Your task to perform on an android device: Open Yahoo.com Image 0: 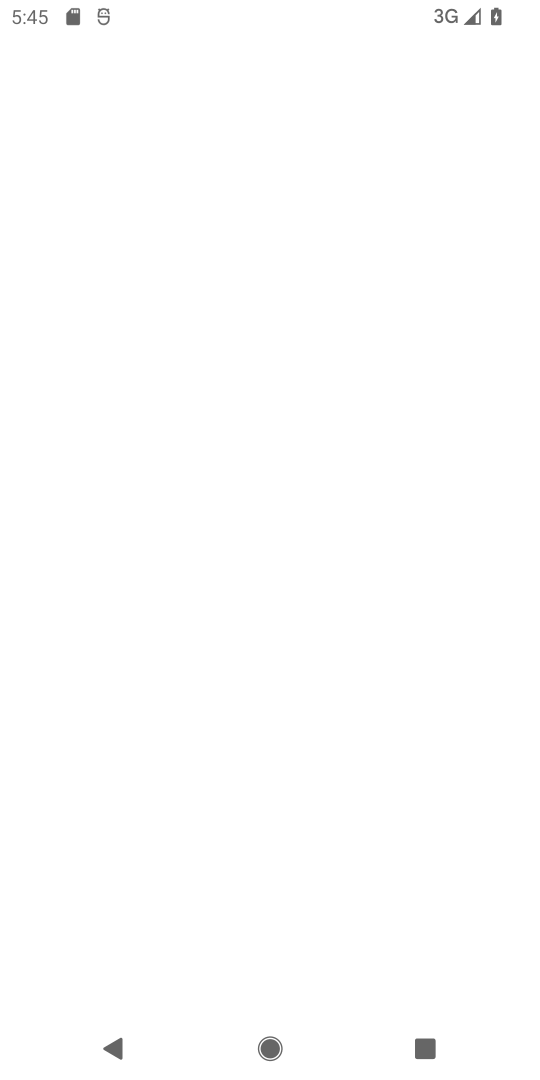
Step 0: press home button
Your task to perform on an android device: Open Yahoo.com Image 1: 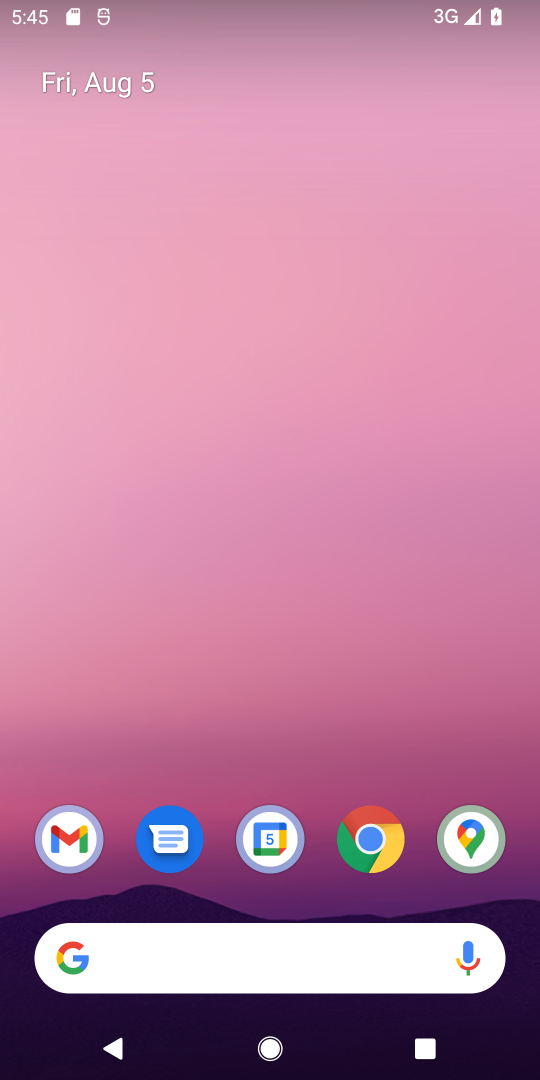
Step 1: click (354, 833)
Your task to perform on an android device: Open Yahoo.com Image 2: 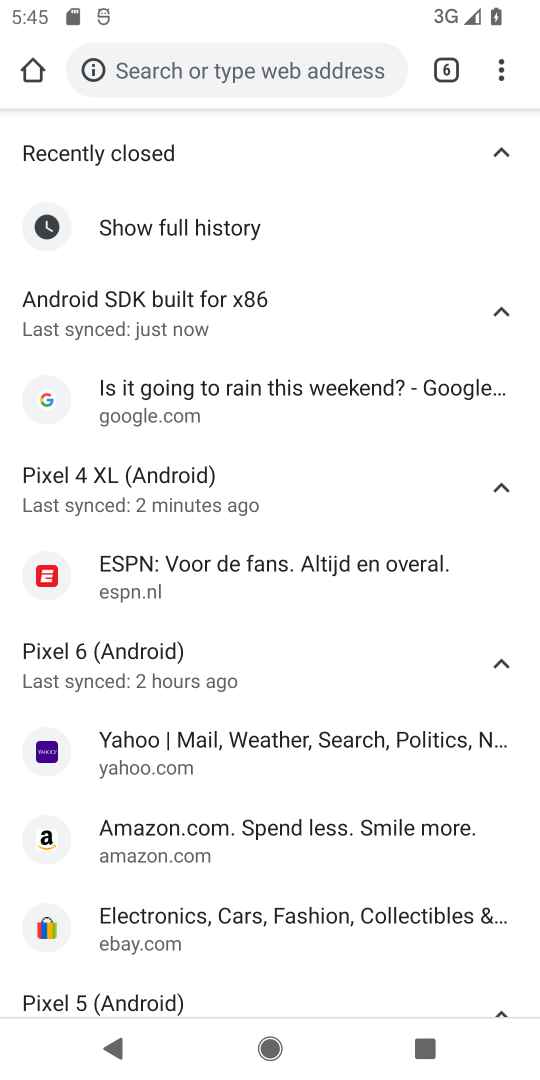
Step 2: click (445, 60)
Your task to perform on an android device: Open Yahoo.com Image 3: 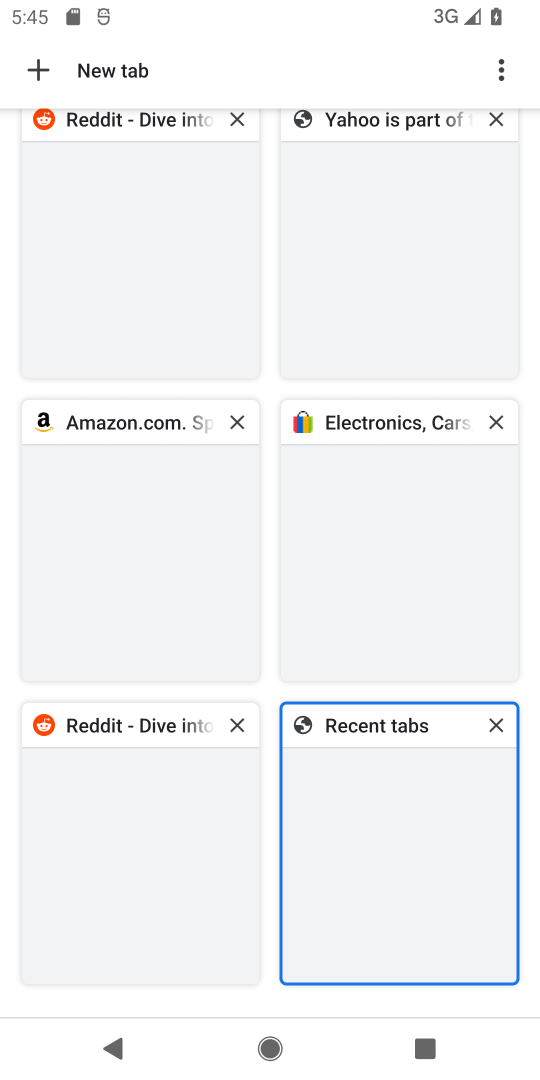
Step 3: click (34, 74)
Your task to perform on an android device: Open Yahoo.com Image 4: 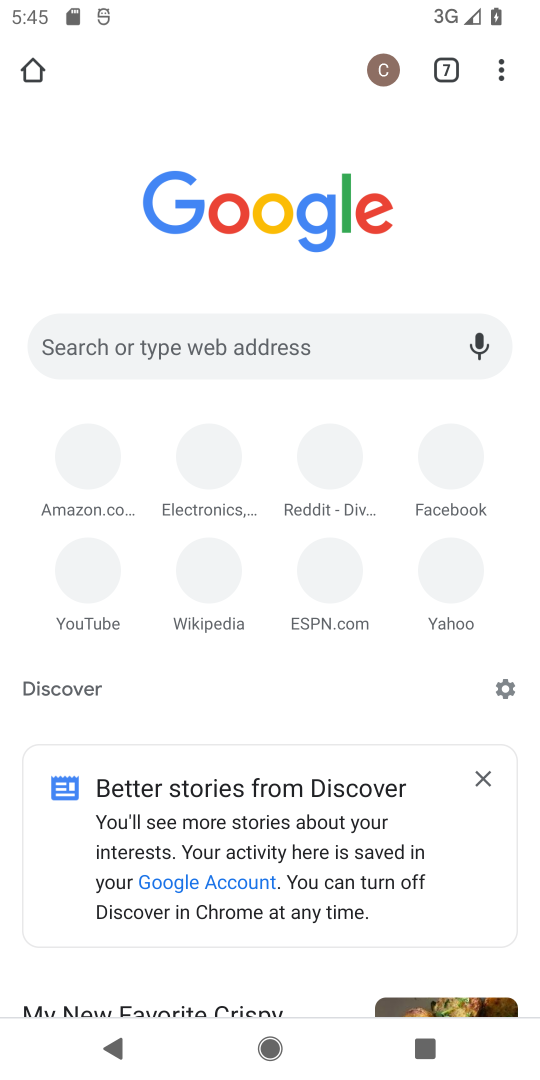
Step 4: click (421, 589)
Your task to perform on an android device: Open Yahoo.com Image 5: 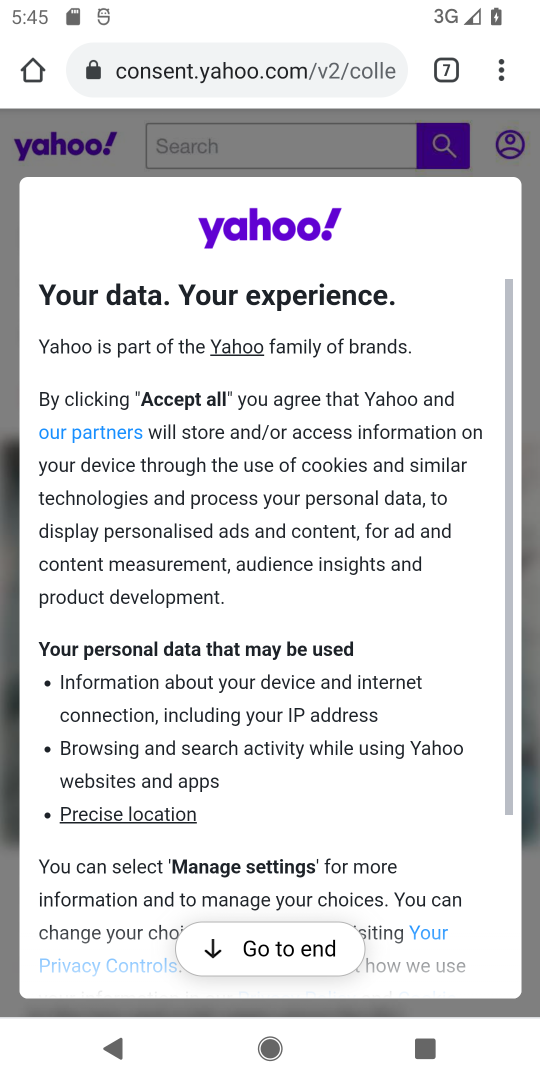
Step 5: task complete